Your task to perform on an android device: open wifi settings Image 0: 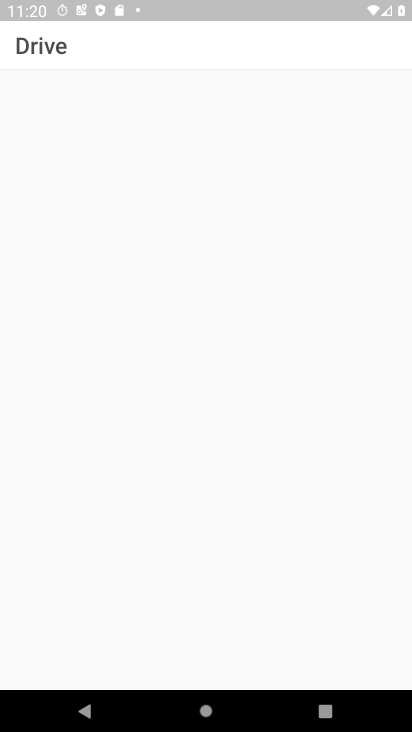
Step 0: press home button
Your task to perform on an android device: open wifi settings Image 1: 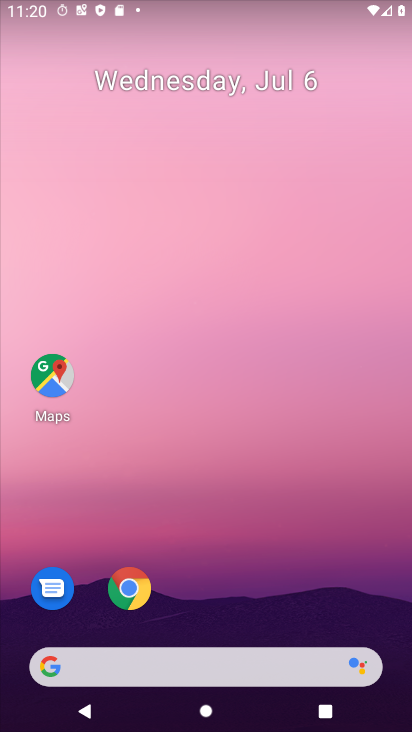
Step 1: drag from (246, 711) to (246, 65)
Your task to perform on an android device: open wifi settings Image 2: 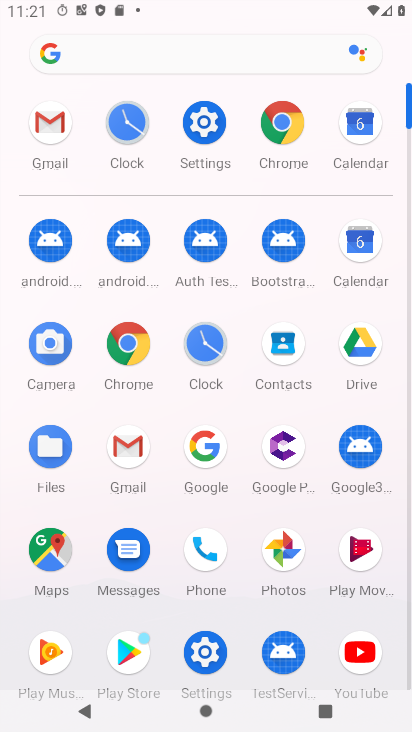
Step 2: click (209, 124)
Your task to perform on an android device: open wifi settings Image 3: 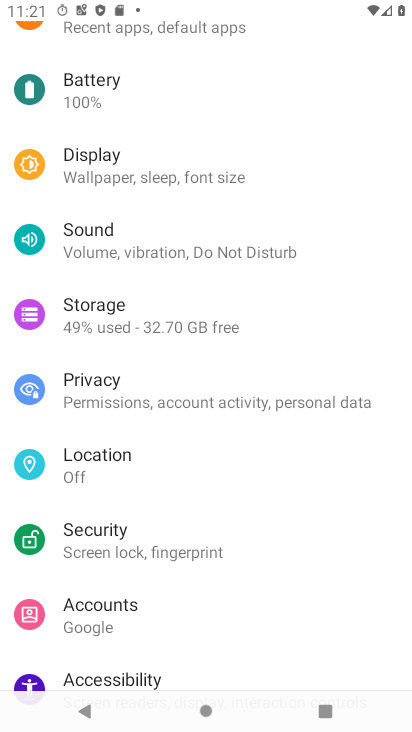
Step 3: drag from (196, 83) to (194, 293)
Your task to perform on an android device: open wifi settings Image 4: 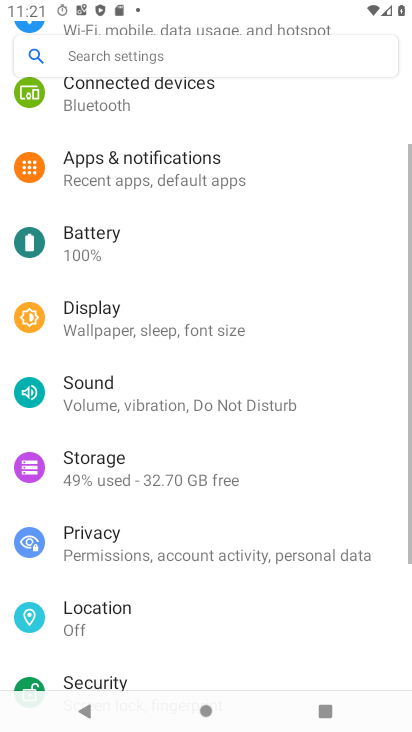
Step 4: click (194, 523)
Your task to perform on an android device: open wifi settings Image 5: 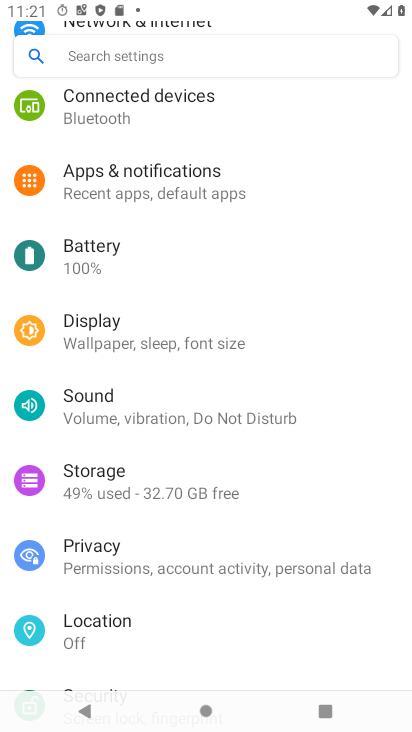
Step 5: drag from (178, 98) to (178, 259)
Your task to perform on an android device: open wifi settings Image 6: 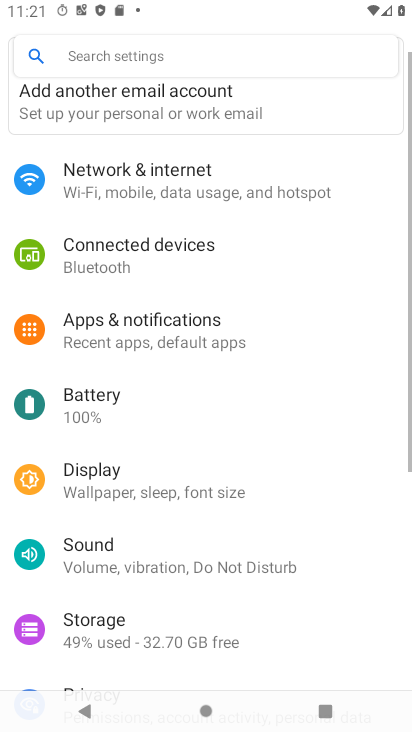
Step 6: click (178, 568)
Your task to perform on an android device: open wifi settings Image 7: 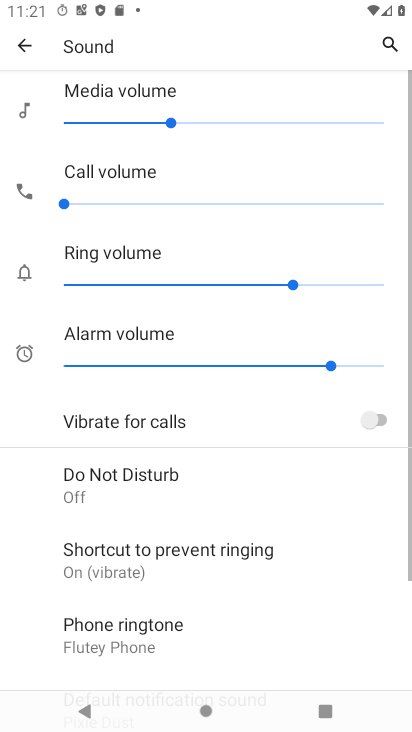
Step 7: click (24, 49)
Your task to perform on an android device: open wifi settings Image 8: 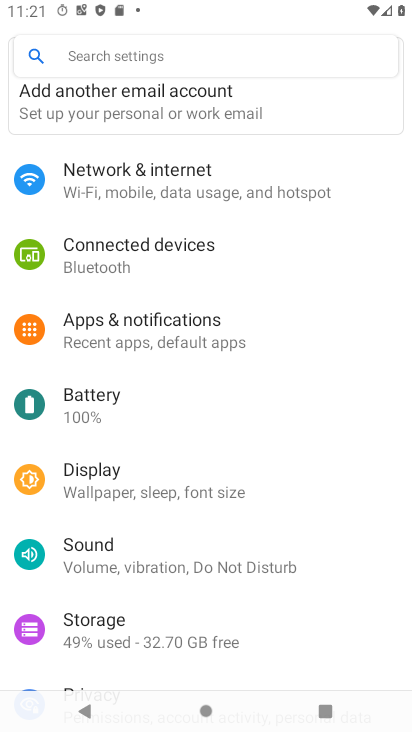
Step 8: click (135, 187)
Your task to perform on an android device: open wifi settings Image 9: 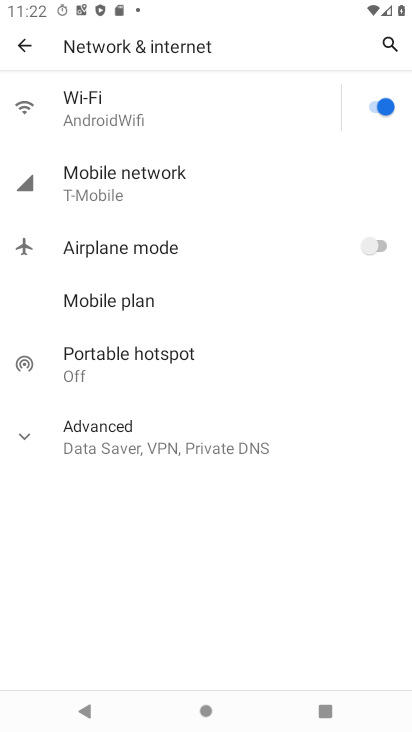
Step 9: click (92, 106)
Your task to perform on an android device: open wifi settings Image 10: 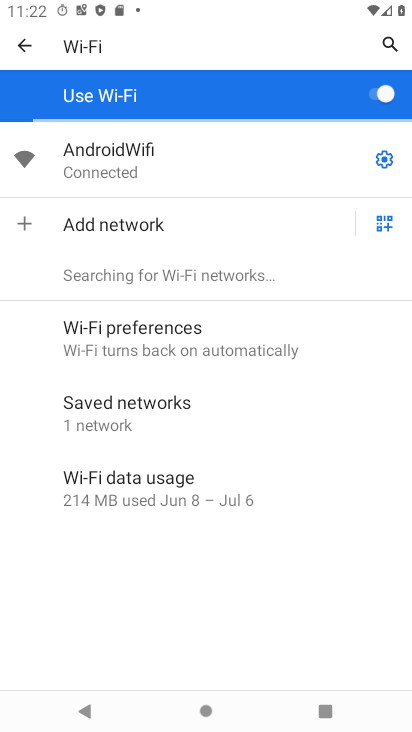
Step 10: task complete